Your task to perform on an android device: open the mobile data screen to see how much data has been used Image 0: 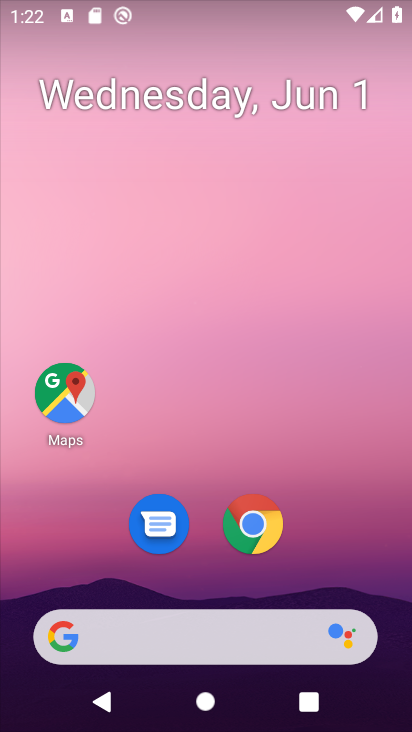
Step 0: drag from (216, 438) to (230, 13)
Your task to perform on an android device: open the mobile data screen to see how much data has been used Image 1: 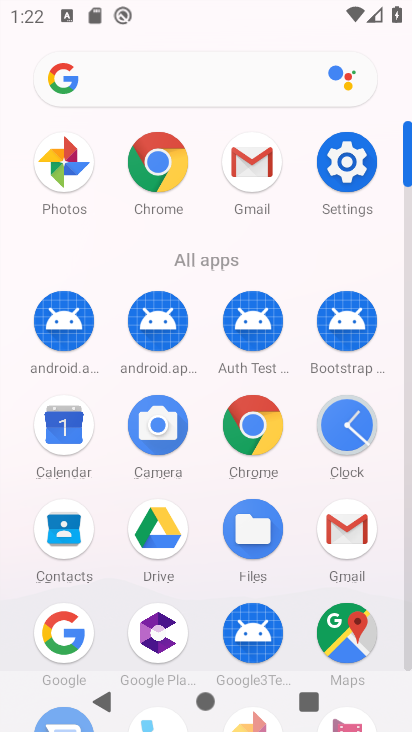
Step 1: click (340, 163)
Your task to perform on an android device: open the mobile data screen to see how much data has been used Image 2: 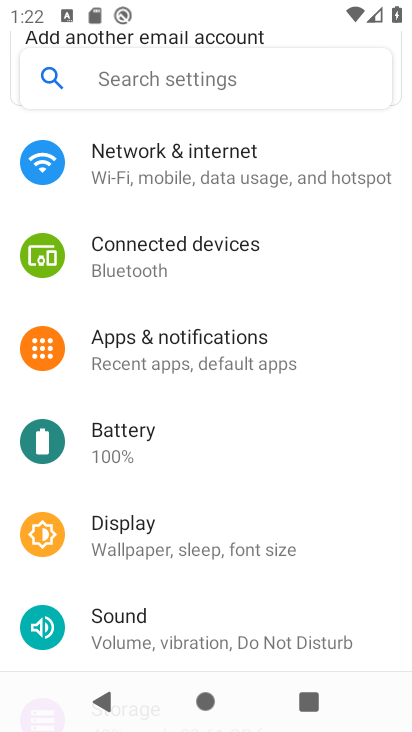
Step 2: click (274, 164)
Your task to perform on an android device: open the mobile data screen to see how much data has been used Image 3: 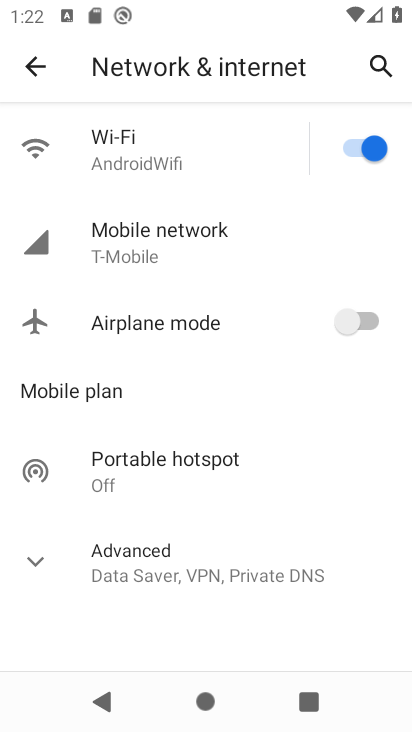
Step 3: click (242, 236)
Your task to perform on an android device: open the mobile data screen to see how much data has been used Image 4: 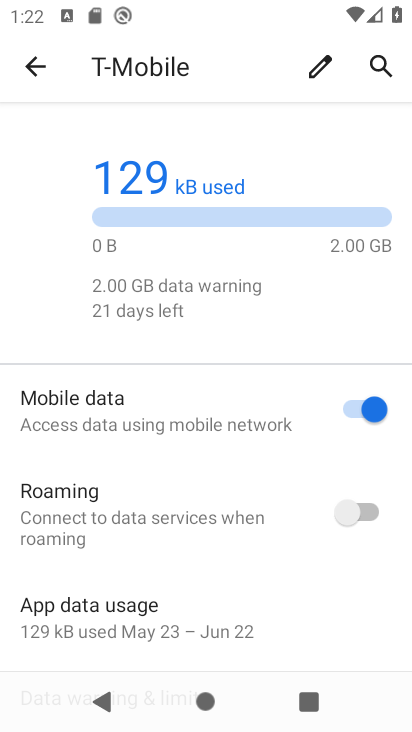
Step 4: task complete